Your task to perform on an android device: check the backup settings in the google photos Image 0: 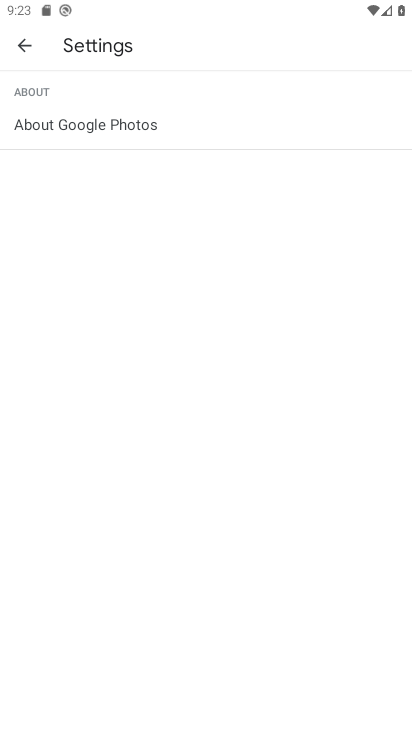
Step 0: click (33, 47)
Your task to perform on an android device: check the backup settings in the google photos Image 1: 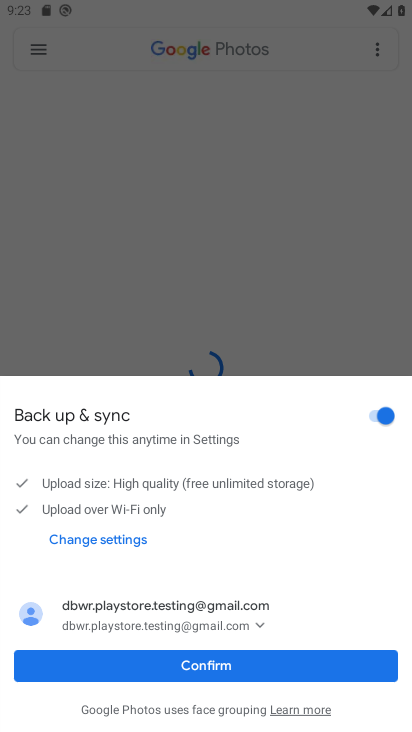
Step 1: click (276, 664)
Your task to perform on an android device: check the backup settings in the google photos Image 2: 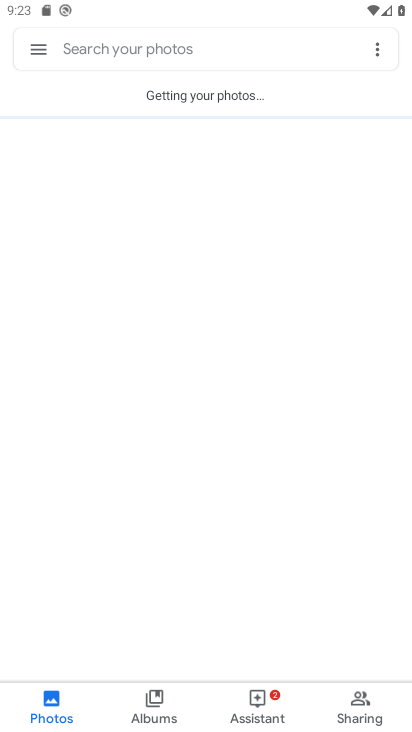
Step 2: click (39, 60)
Your task to perform on an android device: check the backup settings in the google photos Image 3: 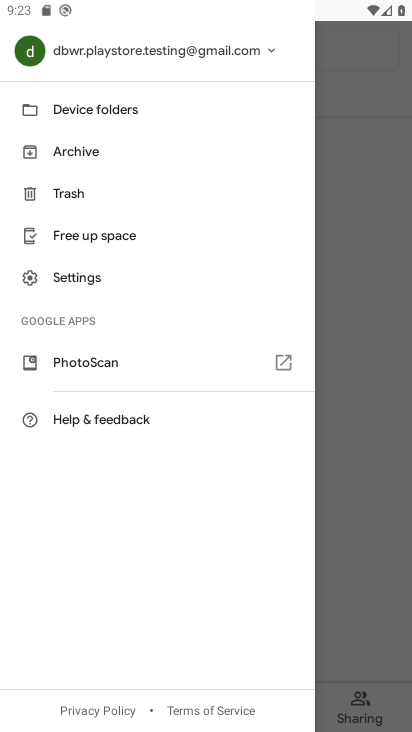
Step 3: click (104, 280)
Your task to perform on an android device: check the backup settings in the google photos Image 4: 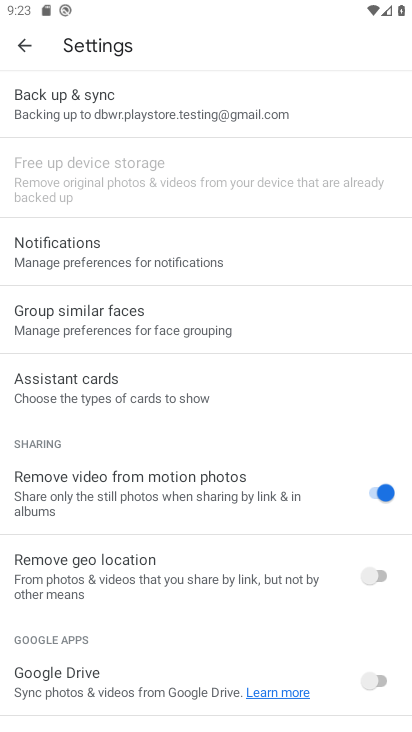
Step 4: click (106, 115)
Your task to perform on an android device: check the backup settings in the google photos Image 5: 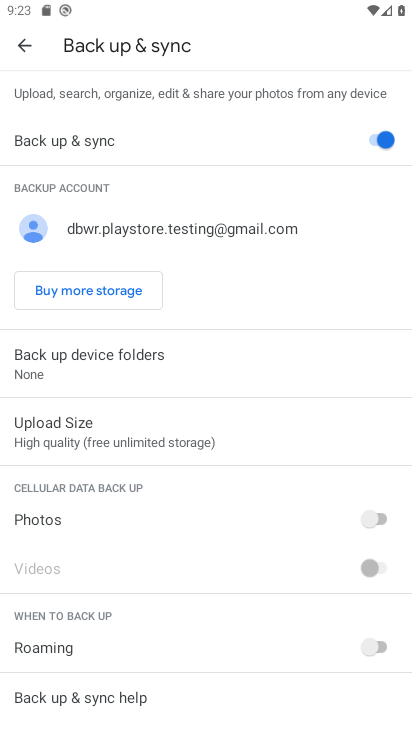
Step 5: task complete